Your task to perform on an android device: toggle location history Image 0: 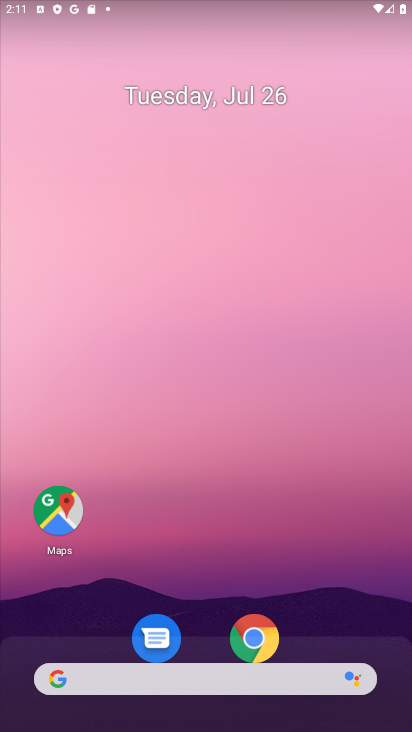
Step 0: click (32, 519)
Your task to perform on an android device: toggle location history Image 1: 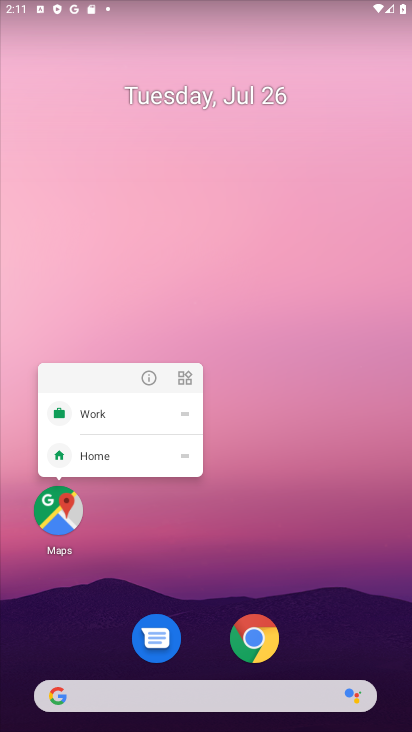
Step 1: click (47, 520)
Your task to perform on an android device: toggle location history Image 2: 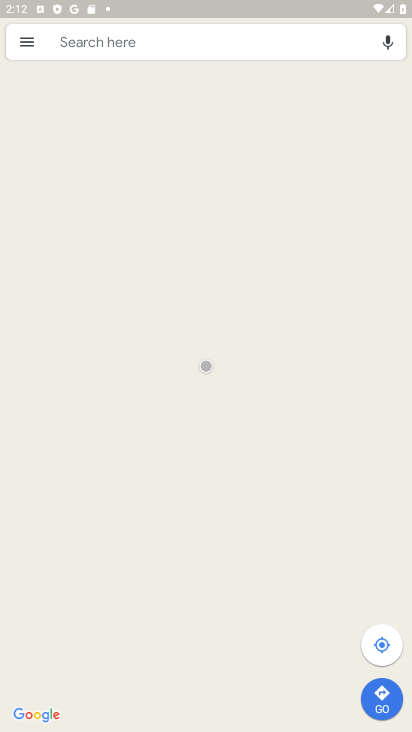
Step 2: click (27, 42)
Your task to perform on an android device: toggle location history Image 3: 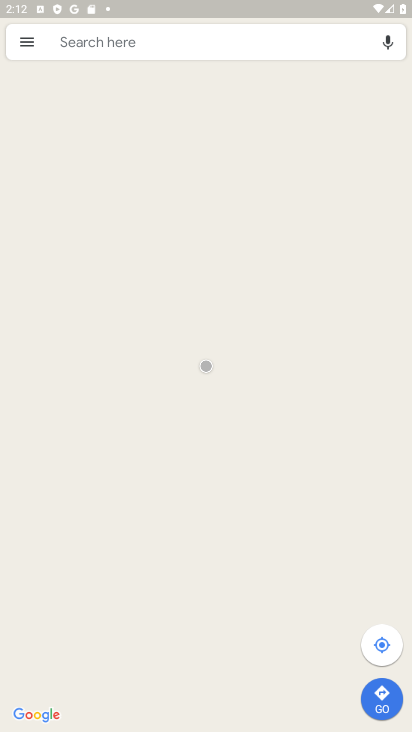
Step 3: click (27, 42)
Your task to perform on an android device: toggle location history Image 4: 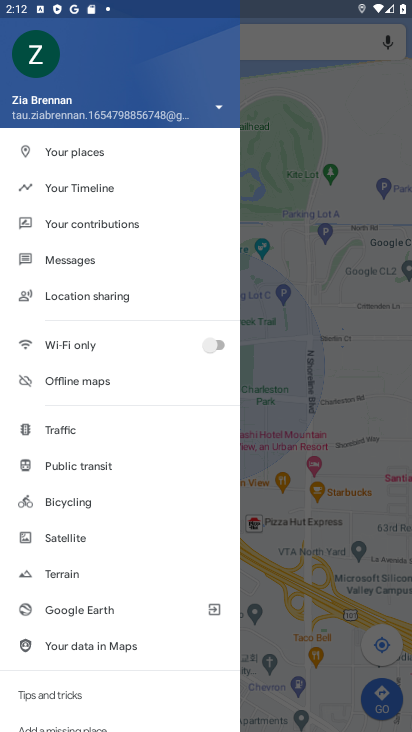
Step 4: drag from (146, 667) to (142, 724)
Your task to perform on an android device: toggle location history Image 5: 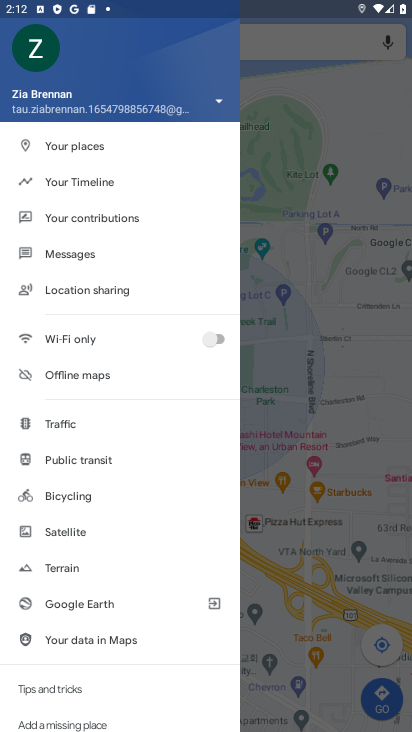
Step 5: click (102, 182)
Your task to perform on an android device: toggle location history Image 6: 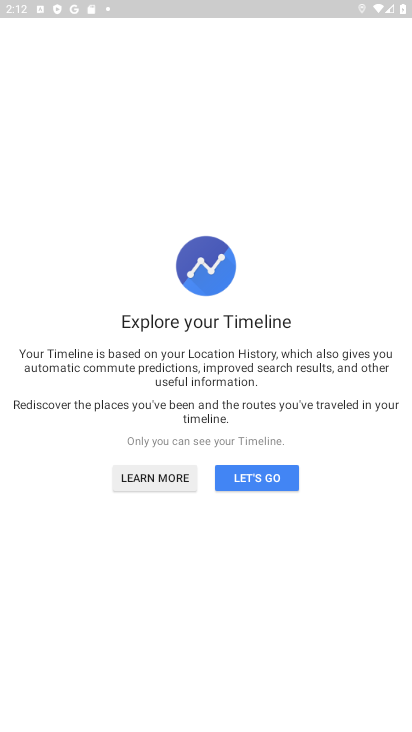
Step 6: click (247, 481)
Your task to perform on an android device: toggle location history Image 7: 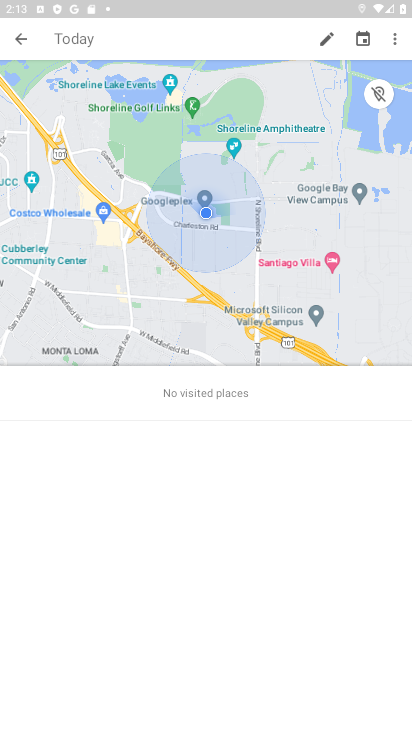
Step 7: click (401, 39)
Your task to perform on an android device: toggle location history Image 8: 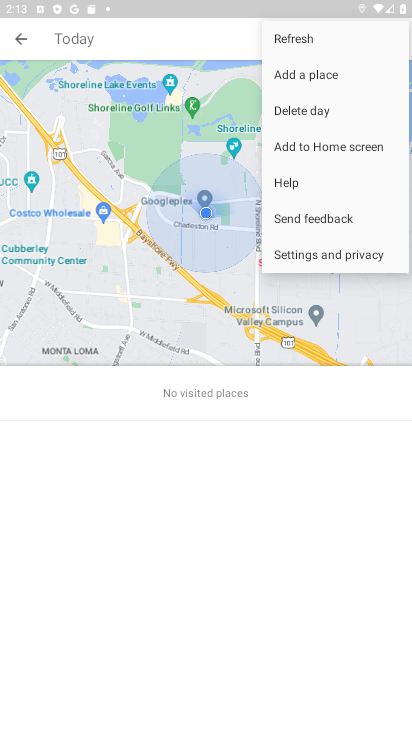
Step 8: click (340, 260)
Your task to perform on an android device: toggle location history Image 9: 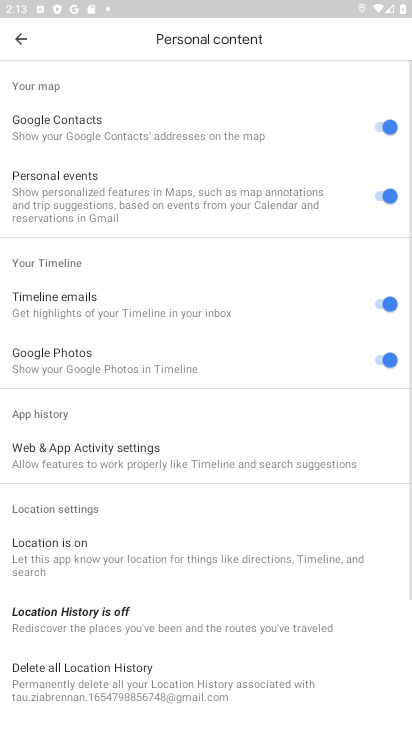
Step 9: click (111, 669)
Your task to perform on an android device: toggle location history Image 10: 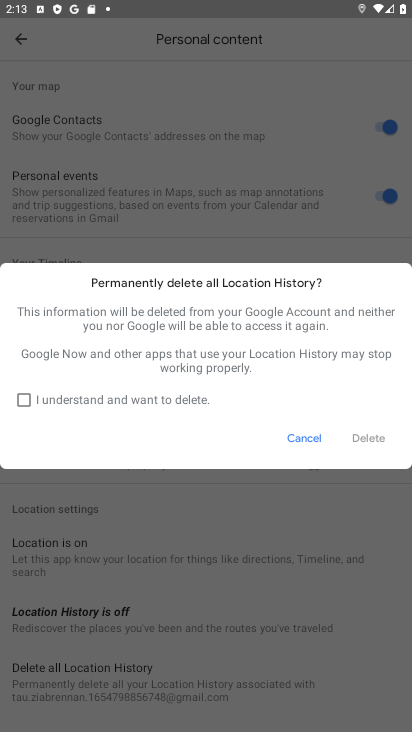
Step 10: click (134, 399)
Your task to perform on an android device: toggle location history Image 11: 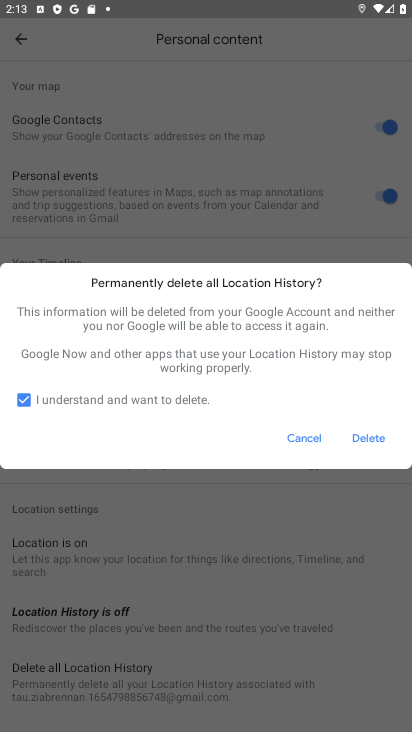
Step 11: click (381, 431)
Your task to perform on an android device: toggle location history Image 12: 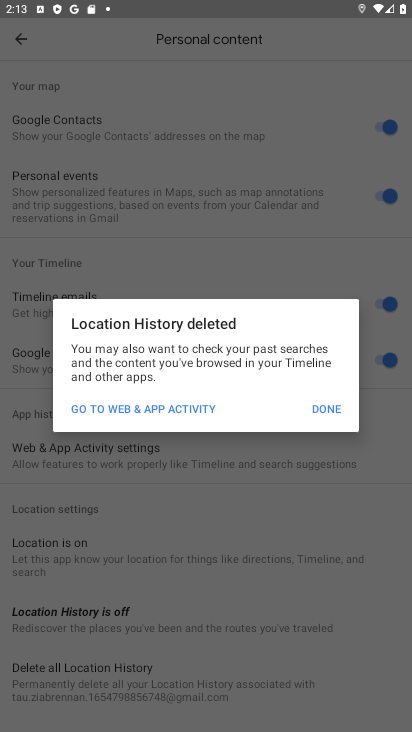
Step 12: click (338, 410)
Your task to perform on an android device: toggle location history Image 13: 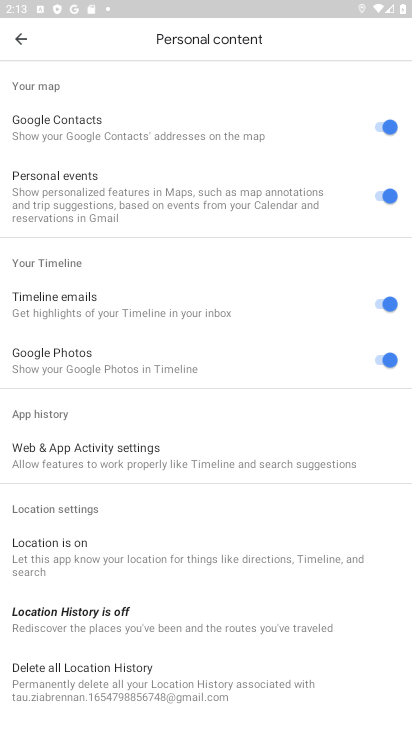
Step 13: task complete